Your task to perform on an android device: make emails show in primary in the gmail app Image 0: 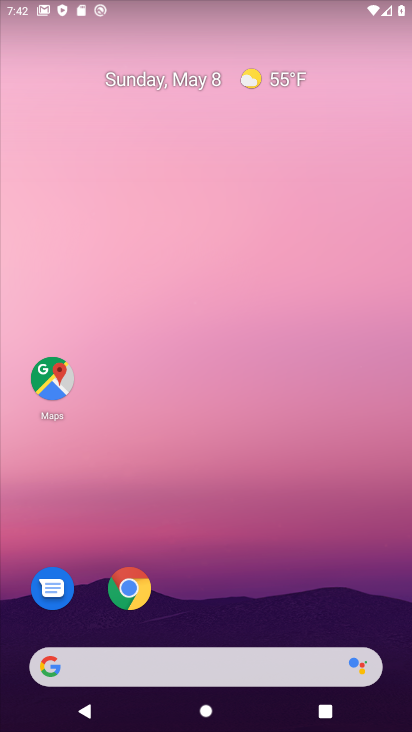
Step 0: drag from (351, 602) to (295, 60)
Your task to perform on an android device: make emails show in primary in the gmail app Image 1: 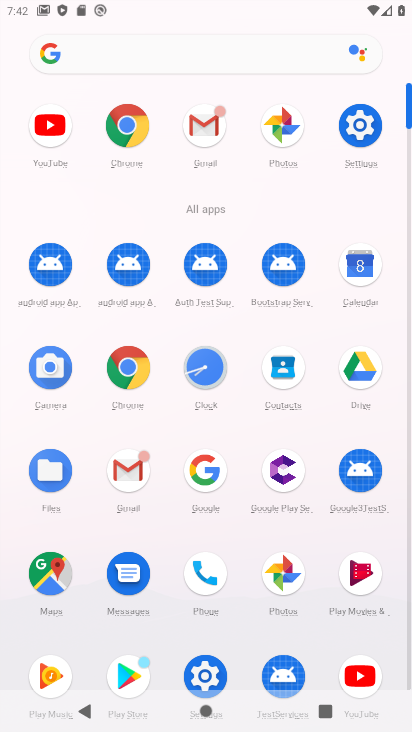
Step 1: click (140, 475)
Your task to perform on an android device: make emails show in primary in the gmail app Image 2: 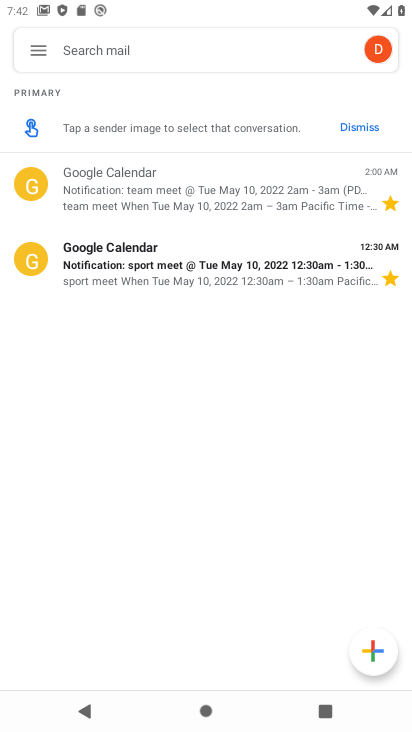
Step 2: click (44, 52)
Your task to perform on an android device: make emails show in primary in the gmail app Image 3: 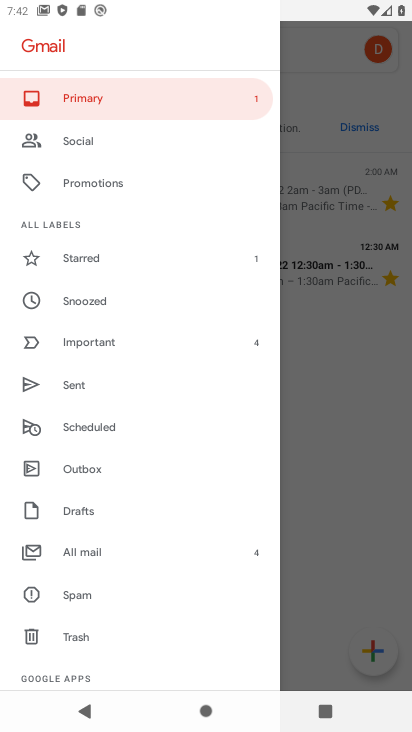
Step 3: drag from (108, 600) to (141, 645)
Your task to perform on an android device: make emails show in primary in the gmail app Image 4: 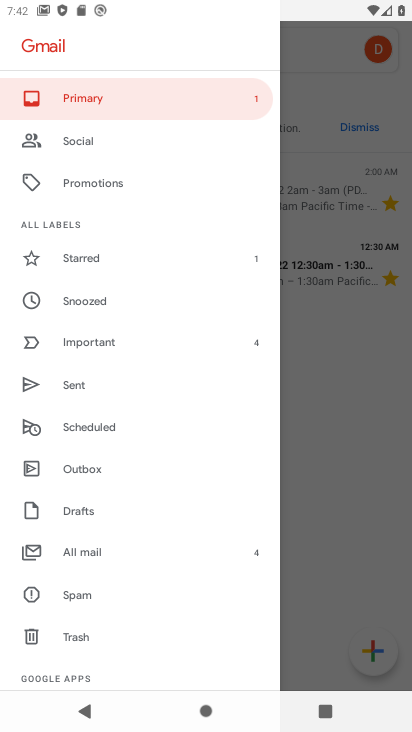
Step 4: click (183, 83)
Your task to perform on an android device: make emails show in primary in the gmail app Image 5: 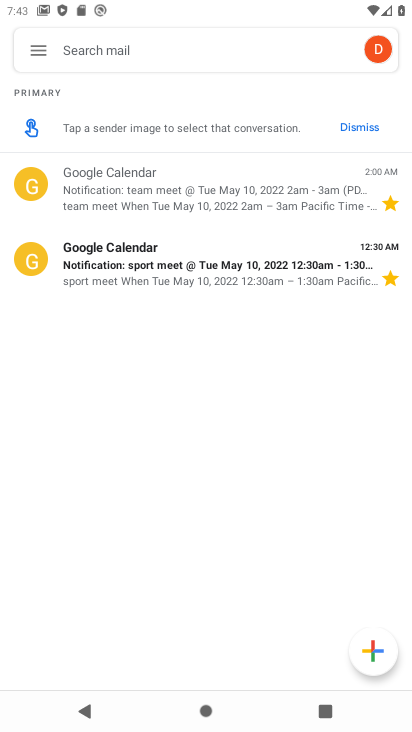
Step 5: task complete